Your task to perform on an android device: toggle wifi Image 0: 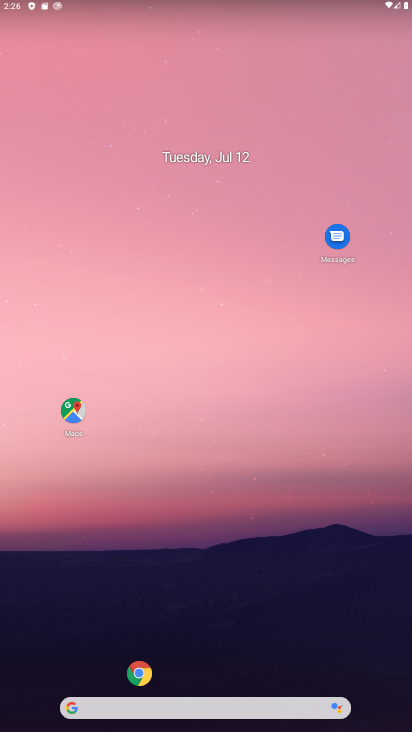
Step 0: drag from (41, 714) to (320, 82)
Your task to perform on an android device: toggle wifi Image 1: 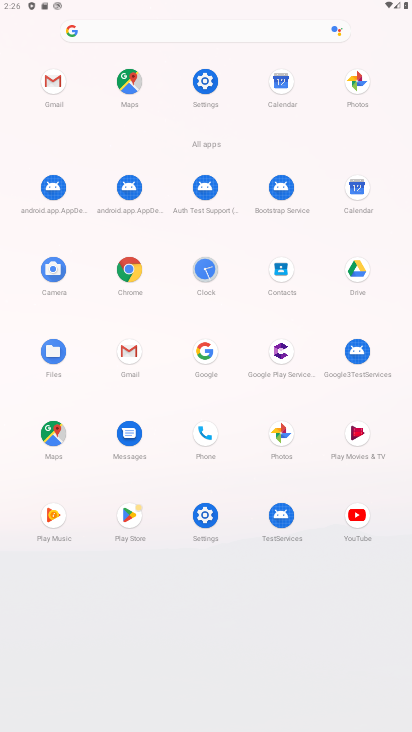
Step 1: click (210, 514)
Your task to perform on an android device: toggle wifi Image 2: 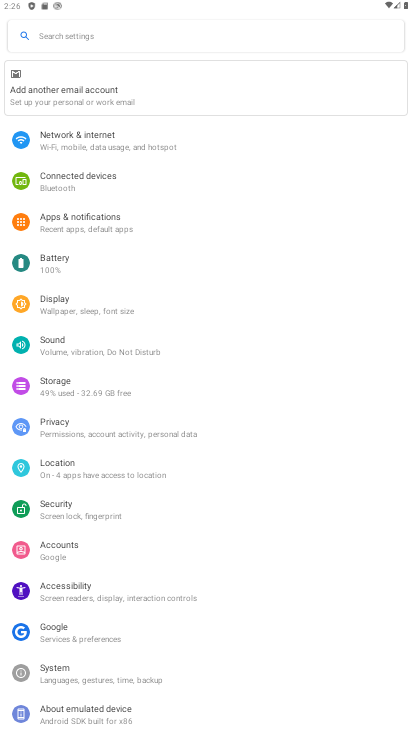
Step 2: click (78, 135)
Your task to perform on an android device: toggle wifi Image 3: 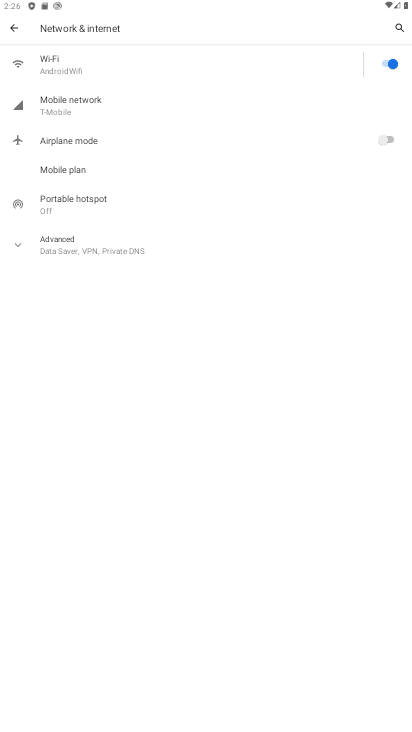
Step 3: task complete